Your task to perform on an android device: Do I have any events tomorrow? Image 0: 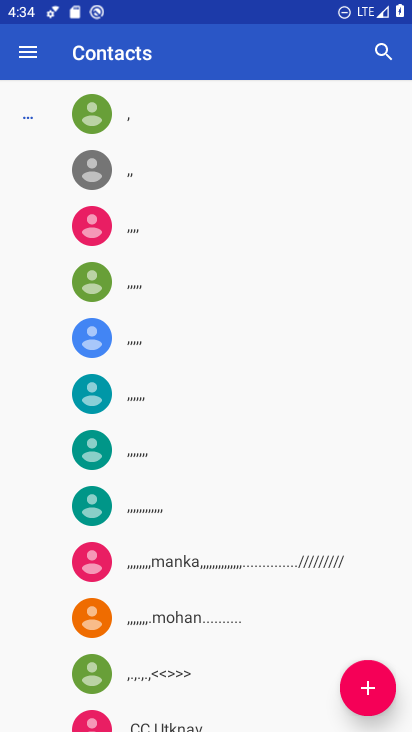
Step 0: press home button
Your task to perform on an android device: Do I have any events tomorrow? Image 1: 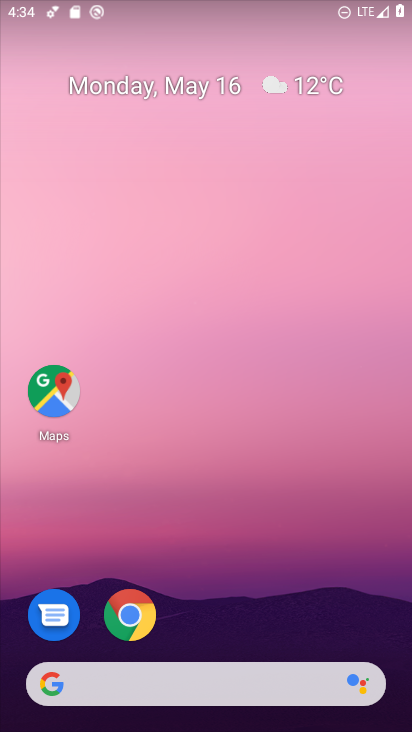
Step 1: drag from (201, 712) to (207, 132)
Your task to perform on an android device: Do I have any events tomorrow? Image 2: 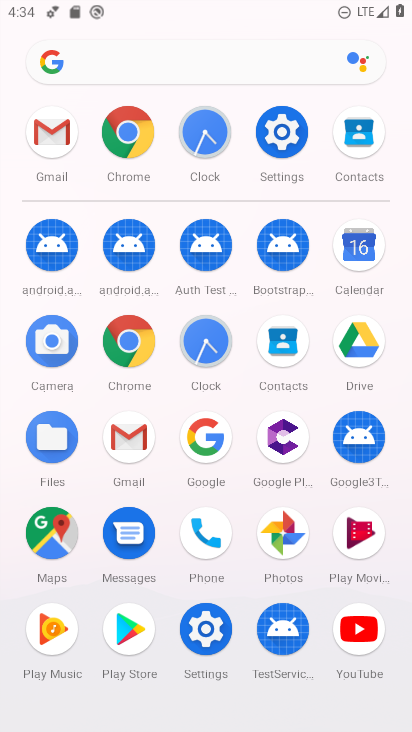
Step 2: click (369, 245)
Your task to perform on an android device: Do I have any events tomorrow? Image 3: 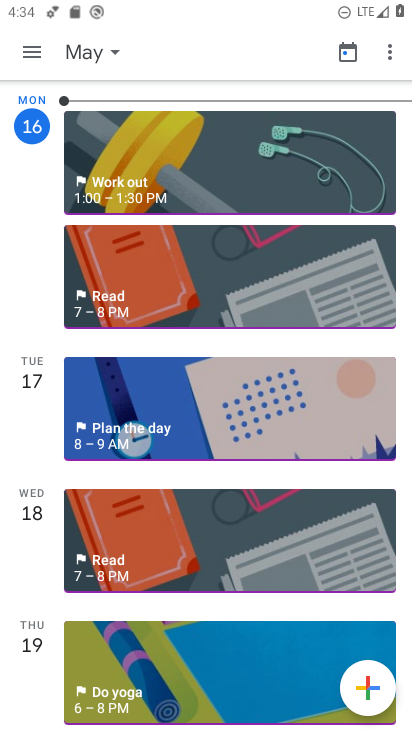
Step 3: click (88, 48)
Your task to perform on an android device: Do I have any events tomorrow? Image 4: 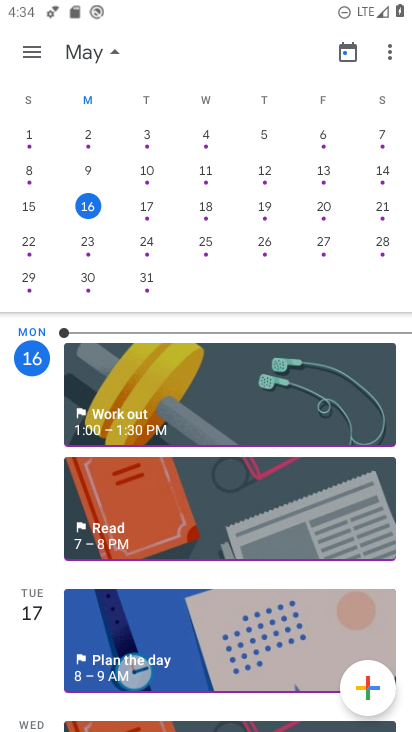
Step 4: click (145, 204)
Your task to perform on an android device: Do I have any events tomorrow? Image 5: 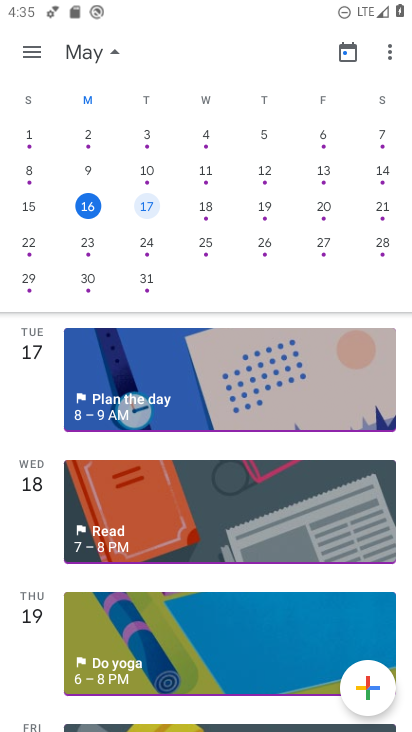
Step 5: click (113, 50)
Your task to perform on an android device: Do I have any events tomorrow? Image 6: 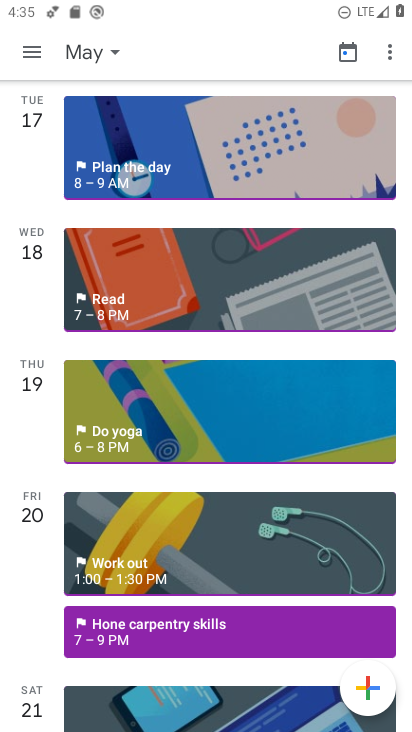
Step 6: task complete